Your task to perform on an android device: When is my next meeting? Image 0: 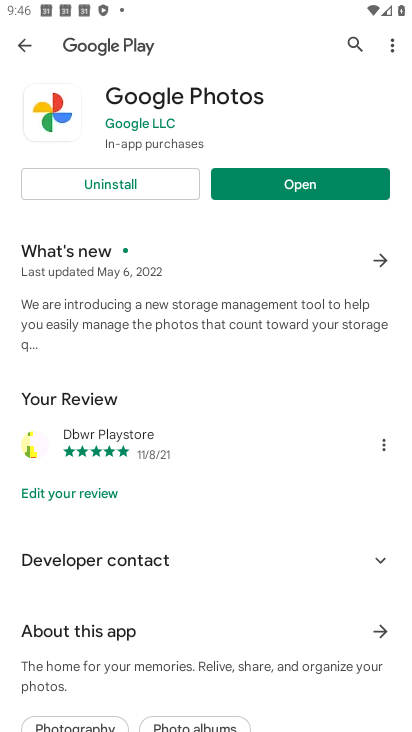
Step 0: click (295, 175)
Your task to perform on an android device: When is my next meeting? Image 1: 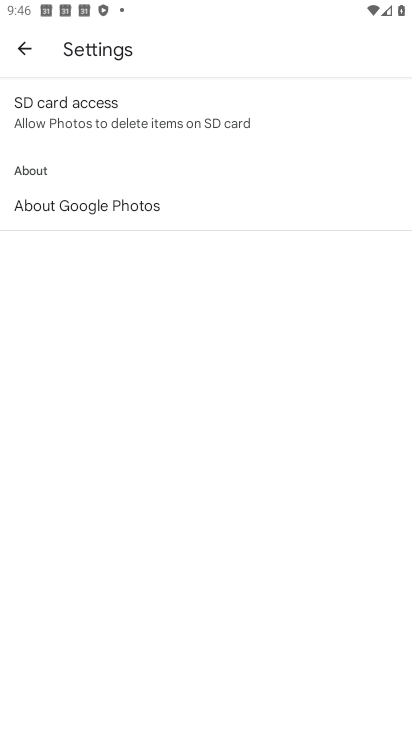
Step 1: press home button
Your task to perform on an android device: When is my next meeting? Image 2: 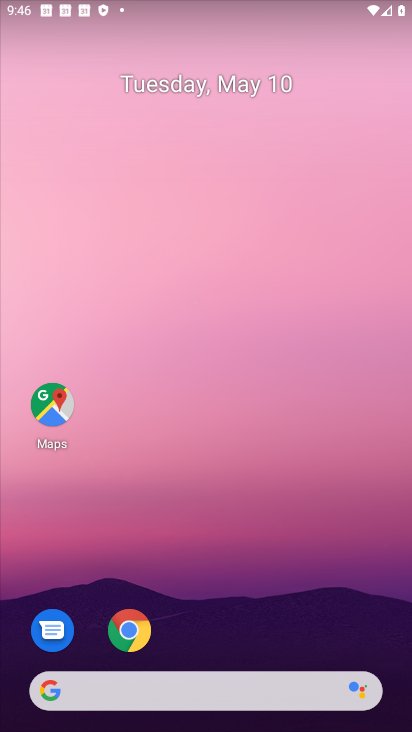
Step 2: drag from (273, 248) to (274, 3)
Your task to perform on an android device: When is my next meeting? Image 3: 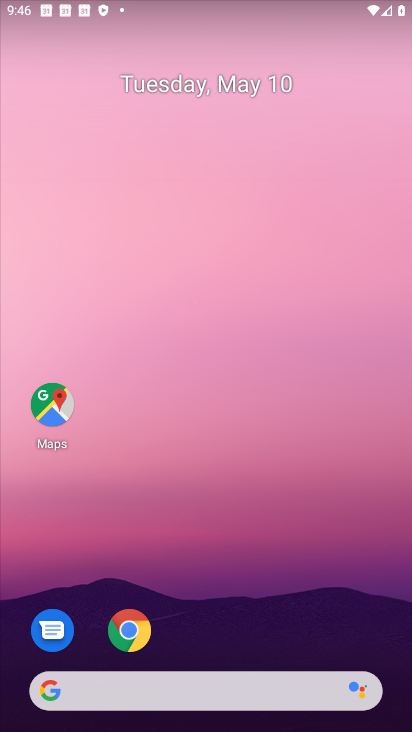
Step 3: drag from (263, 710) to (229, 13)
Your task to perform on an android device: When is my next meeting? Image 4: 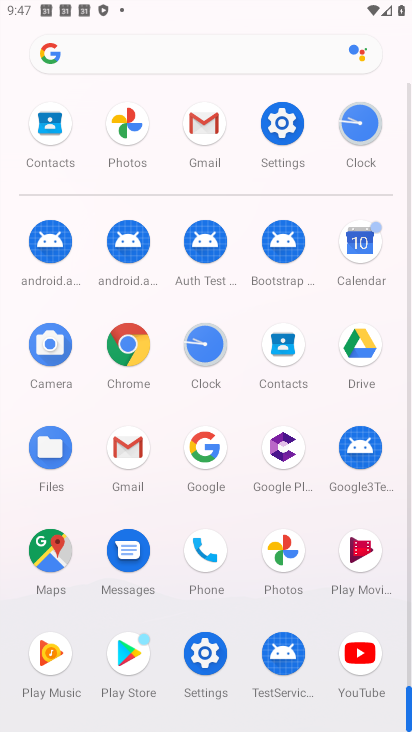
Step 4: click (361, 246)
Your task to perform on an android device: When is my next meeting? Image 5: 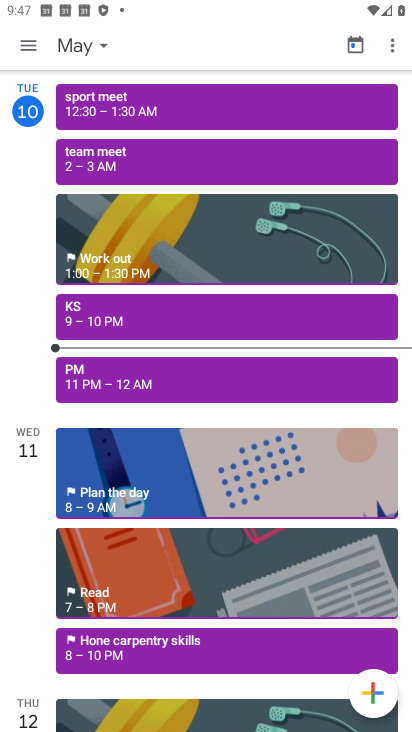
Step 5: task complete